Your task to perform on an android device: When is my next appointment? Image 0: 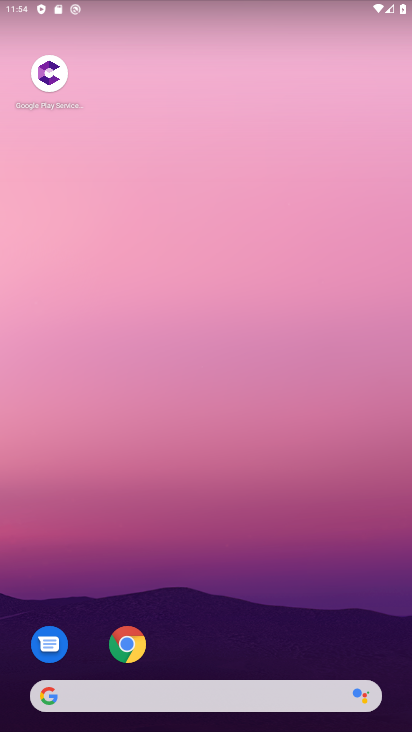
Step 0: press home button
Your task to perform on an android device: When is my next appointment? Image 1: 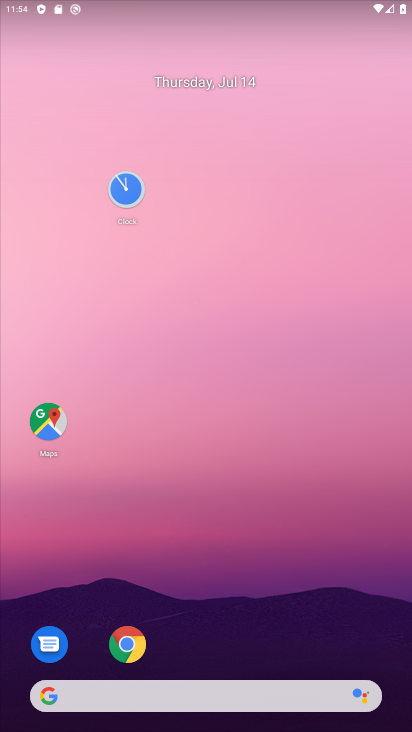
Step 1: drag from (290, 616) to (300, 114)
Your task to perform on an android device: When is my next appointment? Image 2: 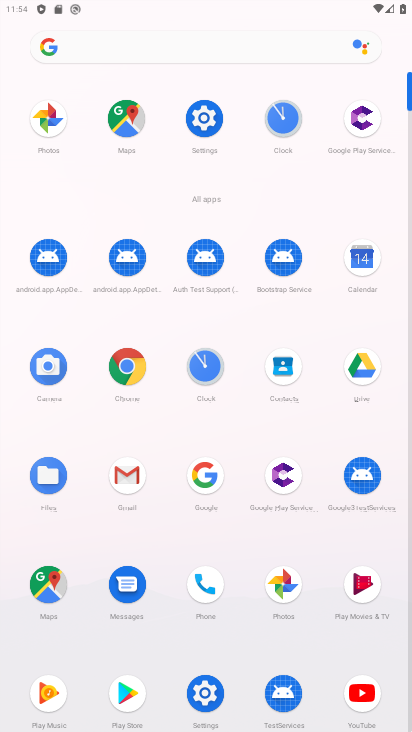
Step 2: click (376, 262)
Your task to perform on an android device: When is my next appointment? Image 3: 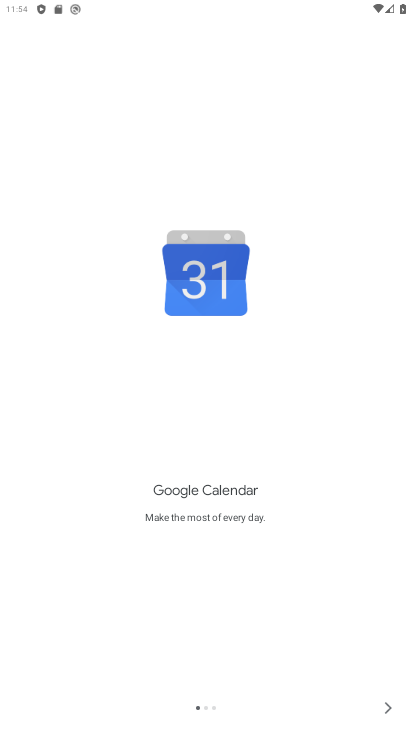
Step 3: click (384, 711)
Your task to perform on an android device: When is my next appointment? Image 4: 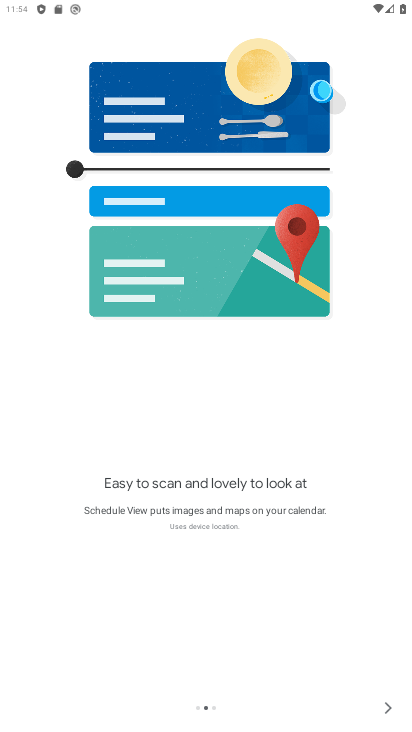
Step 4: click (381, 709)
Your task to perform on an android device: When is my next appointment? Image 5: 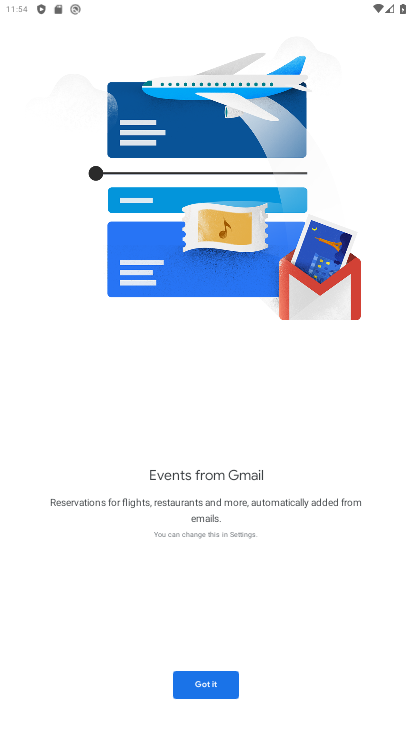
Step 5: click (215, 680)
Your task to perform on an android device: When is my next appointment? Image 6: 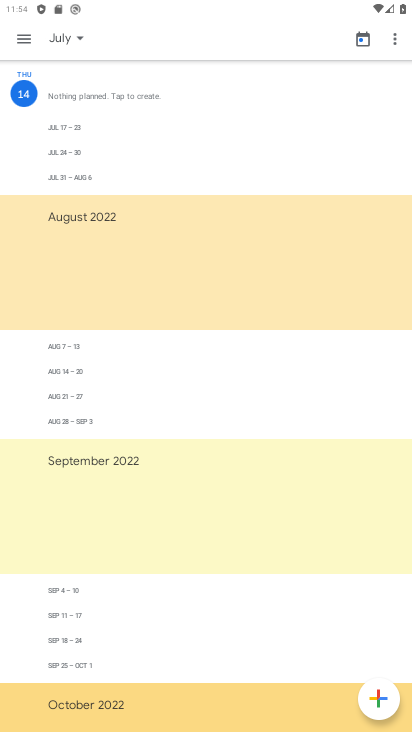
Step 6: click (74, 56)
Your task to perform on an android device: When is my next appointment? Image 7: 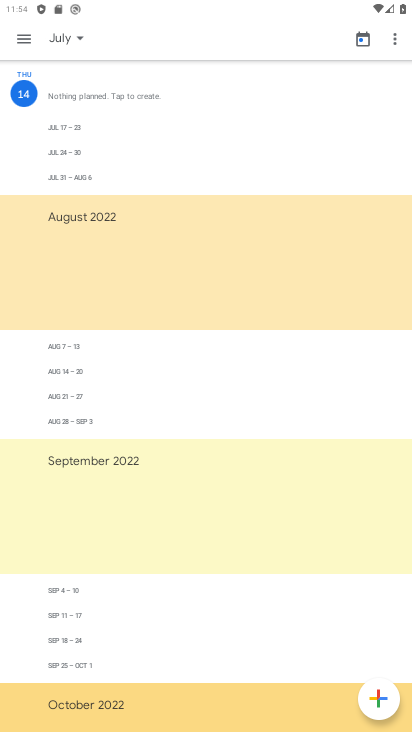
Step 7: click (70, 43)
Your task to perform on an android device: When is my next appointment? Image 8: 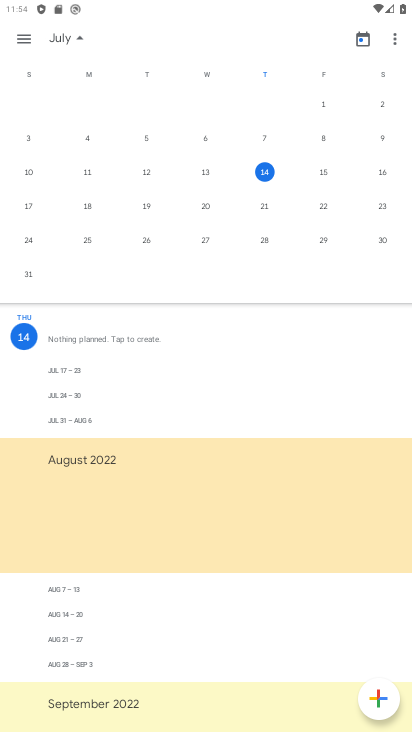
Step 8: click (326, 169)
Your task to perform on an android device: When is my next appointment? Image 9: 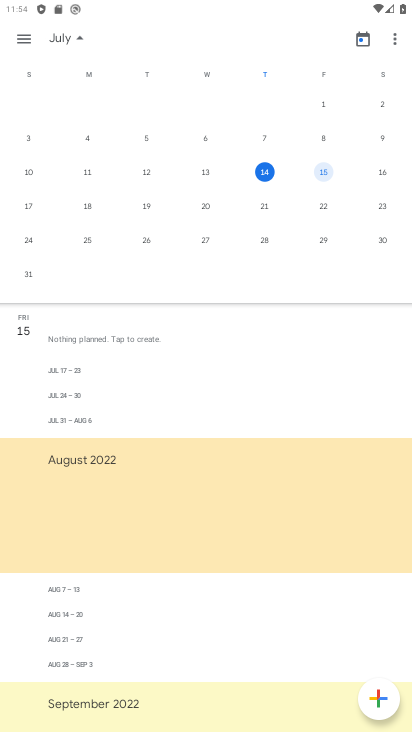
Step 9: click (327, 163)
Your task to perform on an android device: When is my next appointment? Image 10: 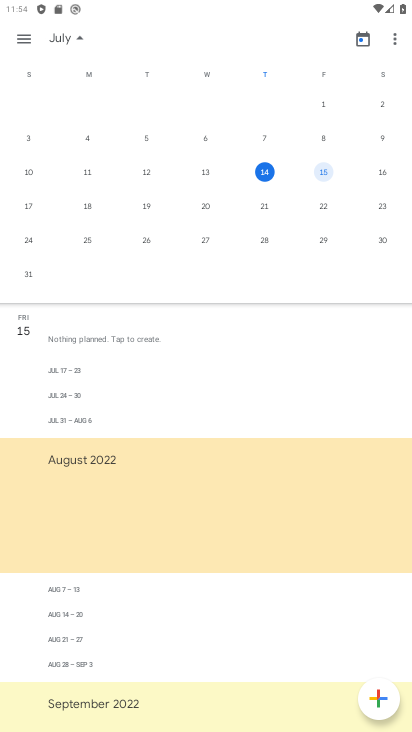
Step 10: task complete